Your task to perform on an android device: find photos in the google photos app Image 0: 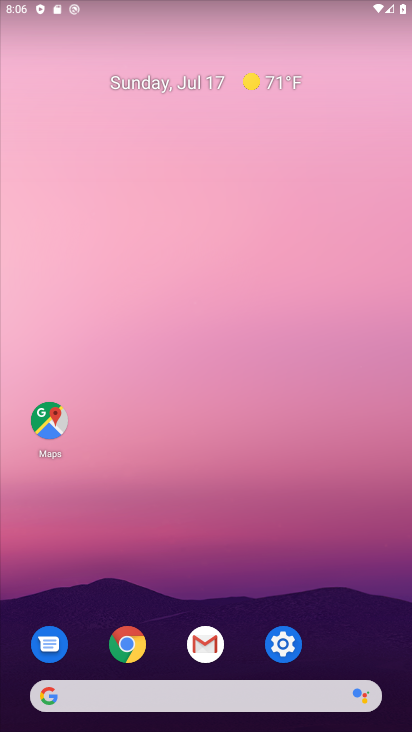
Step 0: drag from (247, 711) to (281, 125)
Your task to perform on an android device: find photos in the google photos app Image 1: 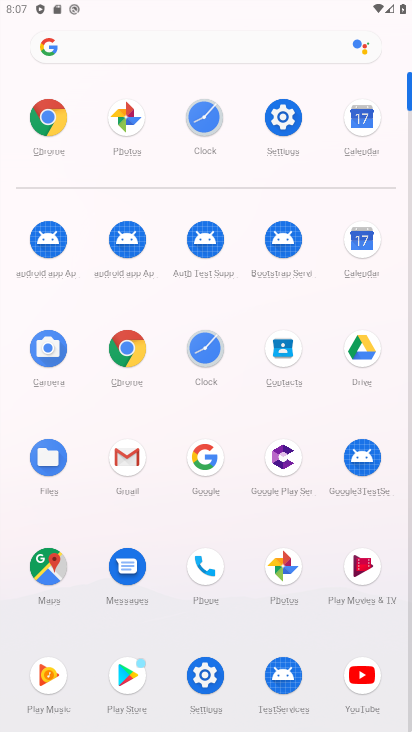
Step 1: click (294, 562)
Your task to perform on an android device: find photos in the google photos app Image 2: 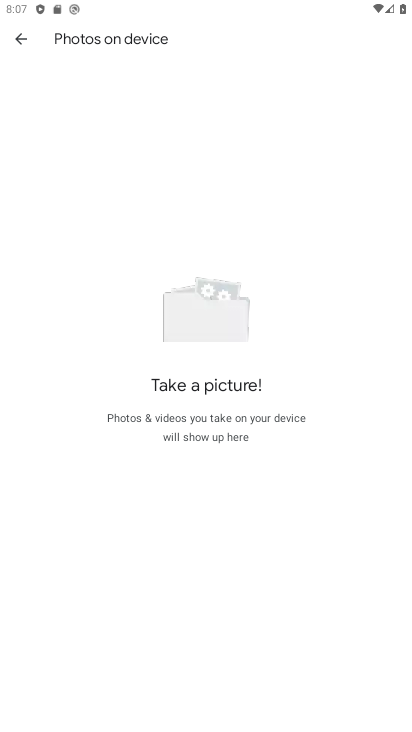
Step 2: click (22, 42)
Your task to perform on an android device: find photos in the google photos app Image 3: 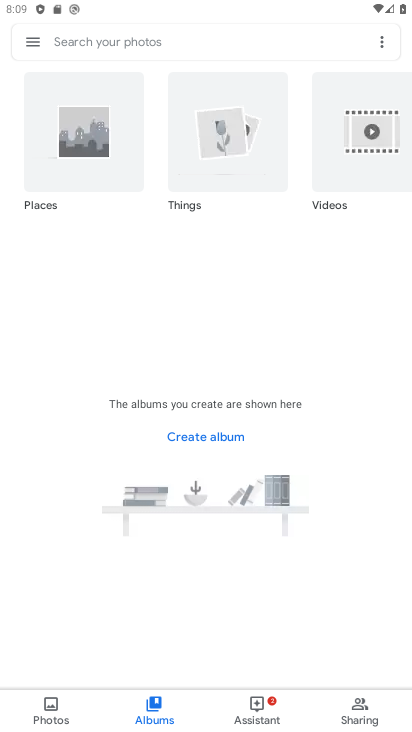
Step 3: task complete